Your task to perform on an android device: Open notification settings Image 0: 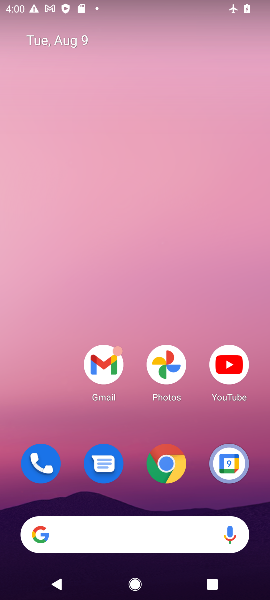
Step 0: drag from (100, 513) to (109, 121)
Your task to perform on an android device: Open notification settings Image 1: 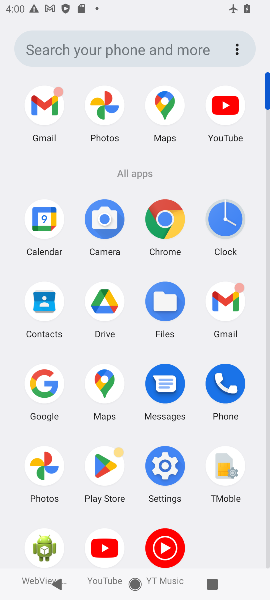
Step 1: click (159, 465)
Your task to perform on an android device: Open notification settings Image 2: 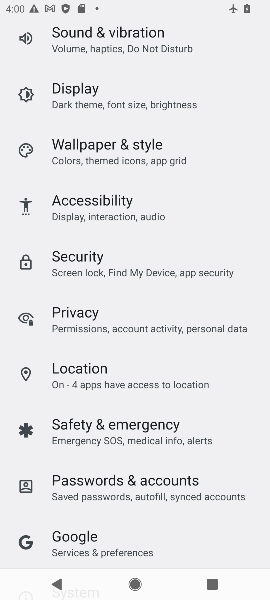
Step 2: drag from (110, 24) to (128, 341)
Your task to perform on an android device: Open notification settings Image 3: 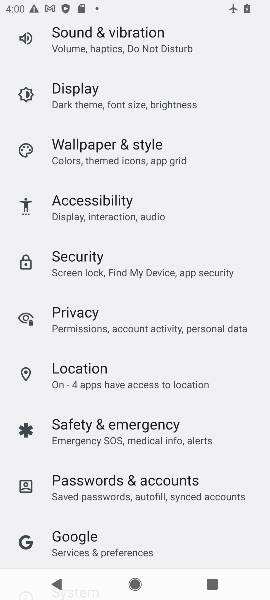
Step 3: drag from (61, 85) to (124, 434)
Your task to perform on an android device: Open notification settings Image 4: 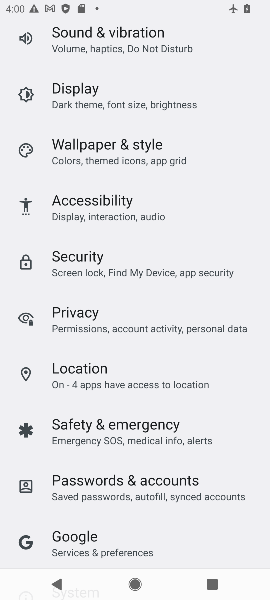
Step 4: drag from (114, 20) to (140, 370)
Your task to perform on an android device: Open notification settings Image 5: 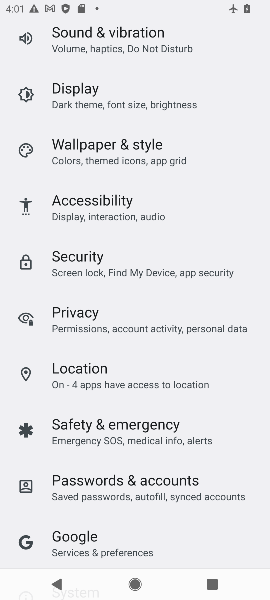
Step 5: drag from (90, 26) to (150, 434)
Your task to perform on an android device: Open notification settings Image 6: 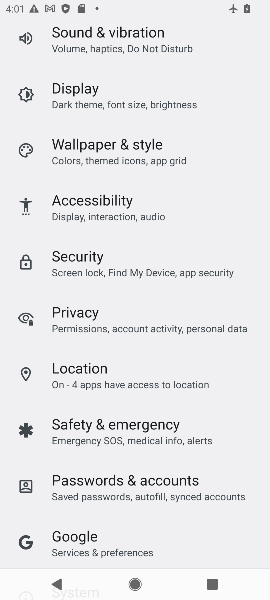
Step 6: drag from (128, 29) to (198, 395)
Your task to perform on an android device: Open notification settings Image 7: 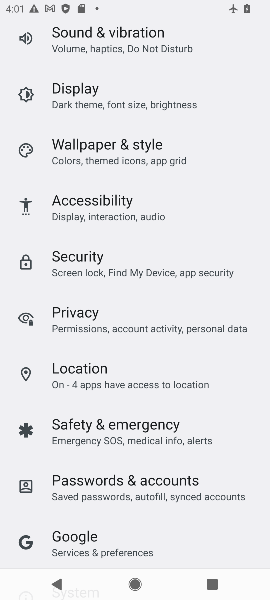
Step 7: drag from (163, 22) to (197, 371)
Your task to perform on an android device: Open notification settings Image 8: 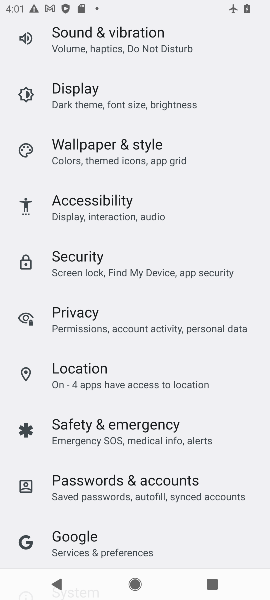
Step 8: drag from (131, 21) to (167, 416)
Your task to perform on an android device: Open notification settings Image 9: 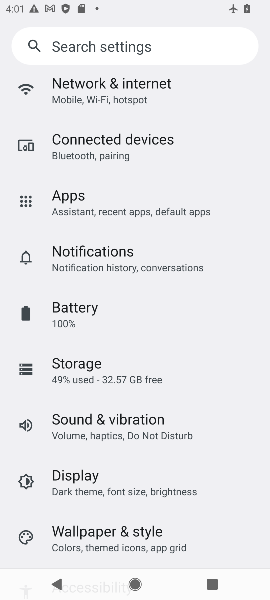
Step 9: click (94, 255)
Your task to perform on an android device: Open notification settings Image 10: 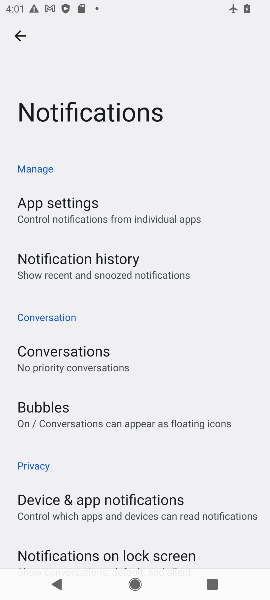
Step 10: task complete